Your task to perform on an android device: find photos in the google photos app Image 0: 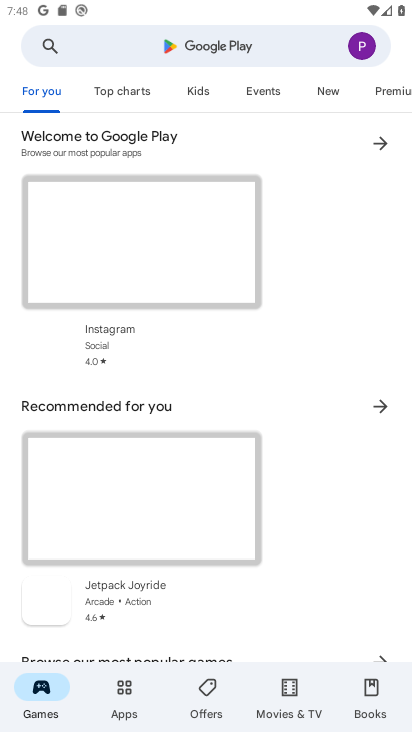
Step 0: press home button
Your task to perform on an android device: find photos in the google photos app Image 1: 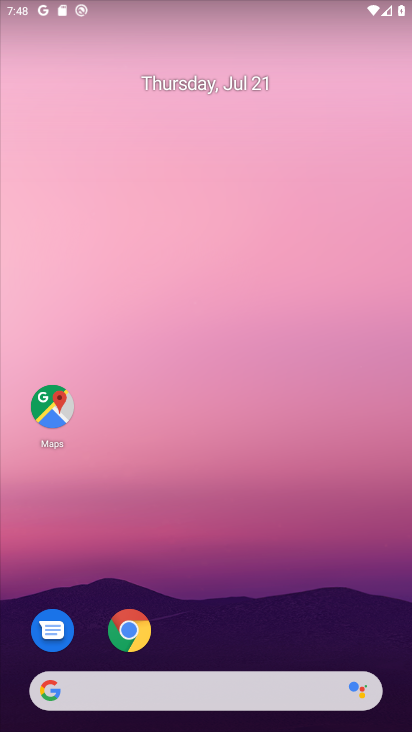
Step 1: drag from (208, 677) to (133, 20)
Your task to perform on an android device: find photos in the google photos app Image 2: 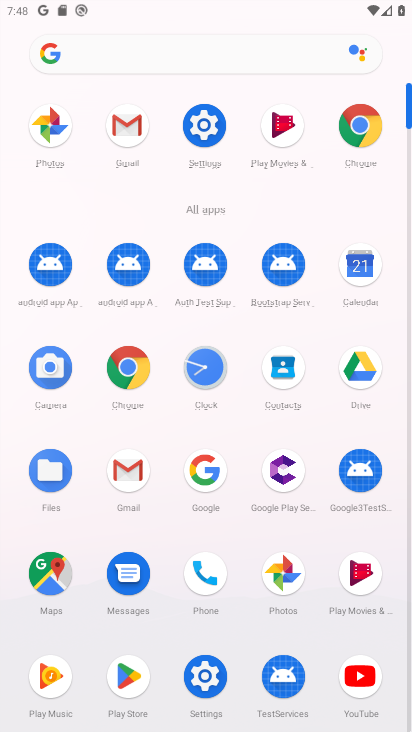
Step 2: click (278, 576)
Your task to perform on an android device: find photos in the google photos app Image 3: 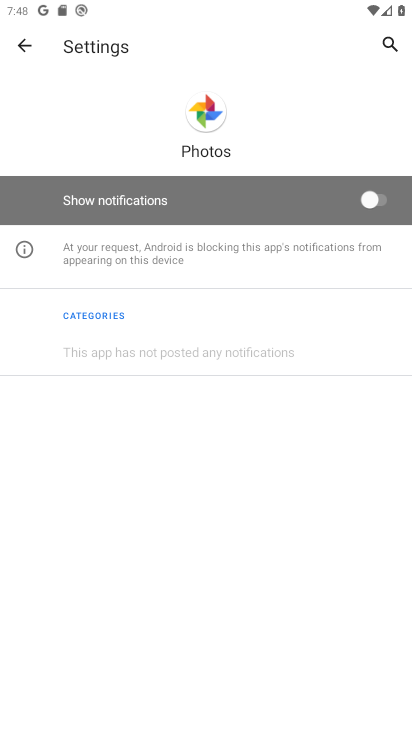
Step 3: click (29, 53)
Your task to perform on an android device: find photos in the google photos app Image 4: 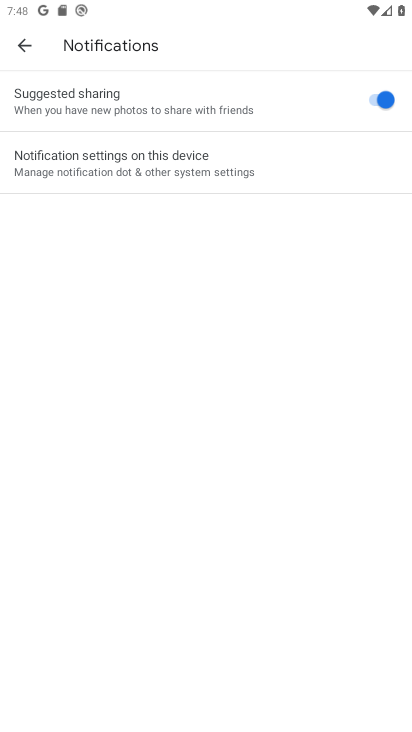
Step 4: click (27, 53)
Your task to perform on an android device: find photos in the google photos app Image 5: 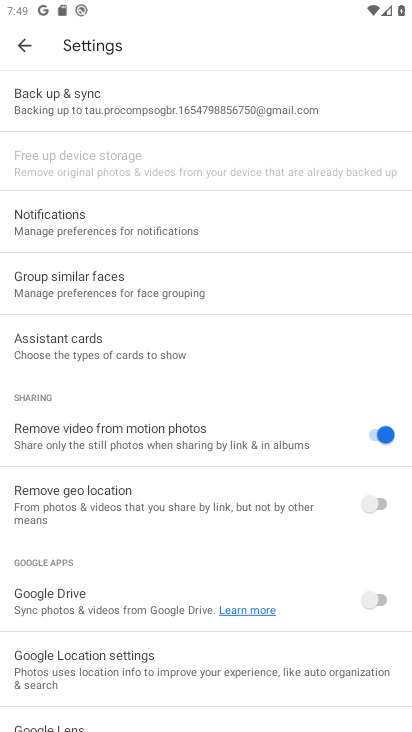
Step 5: click (27, 41)
Your task to perform on an android device: find photos in the google photos app Image 6: 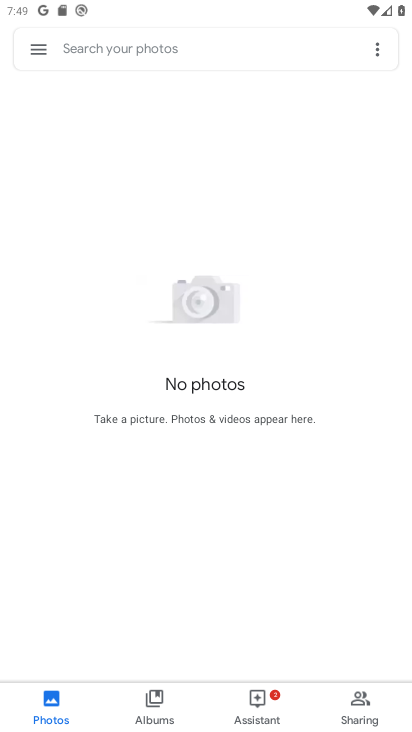
Step 6: task complete